Your task to perform on an android device: Turn on the flashlight Image 0: 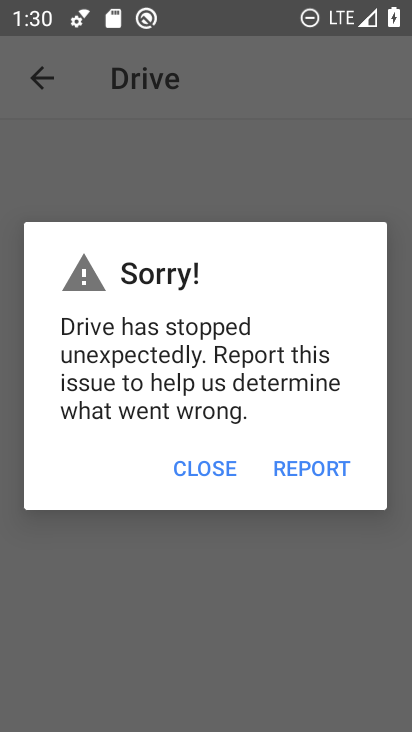
Step 0: press home button
Your task to perform on an android device: Turn on the flashlight Image 1: 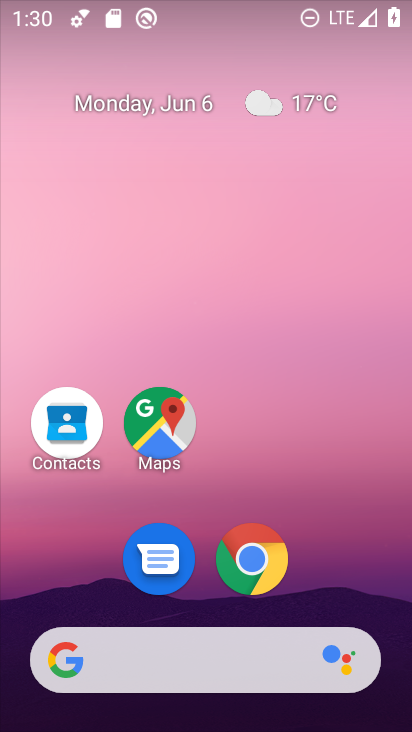
Step 1: drag from (218, 657) to (190, 223)
Your task to perform on an android device: Turn on the flashlight Image 2: 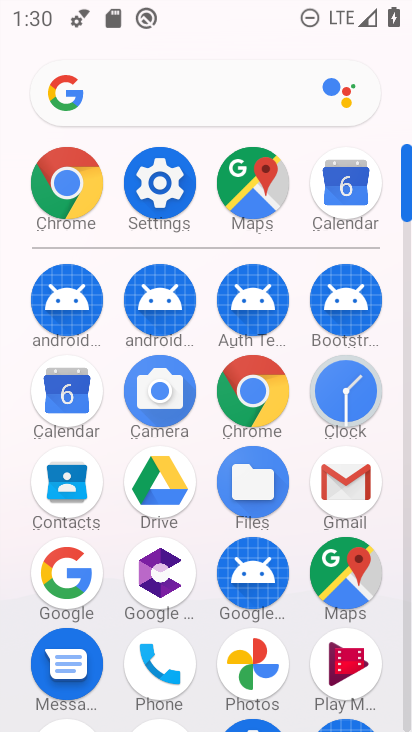
Step 2: drag from (223, 78) to (228, 351)
Your task to perform on an android device: Turn on the flashlight Image 3: 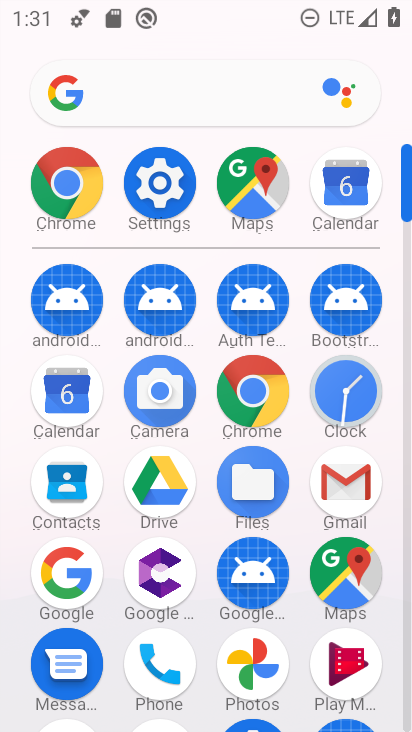
Step 3: click (286, 17)
Your task to perform on an android device: Turn on the flashlight Image 4: 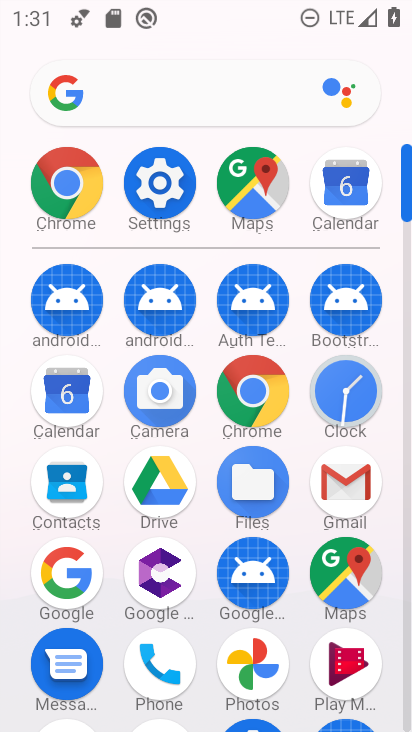
Step 4: task complete